Your task to perform on an android device: change the upload size in google photos Image 0: 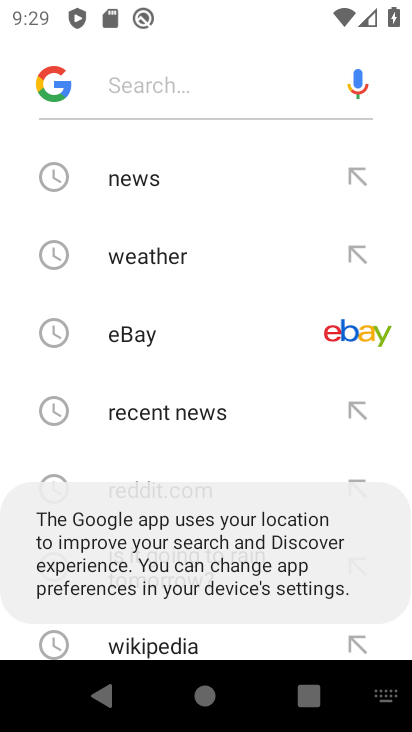
Step 0: press back button
Your task to perform on an android device: change the upload size in google photos Image 1: 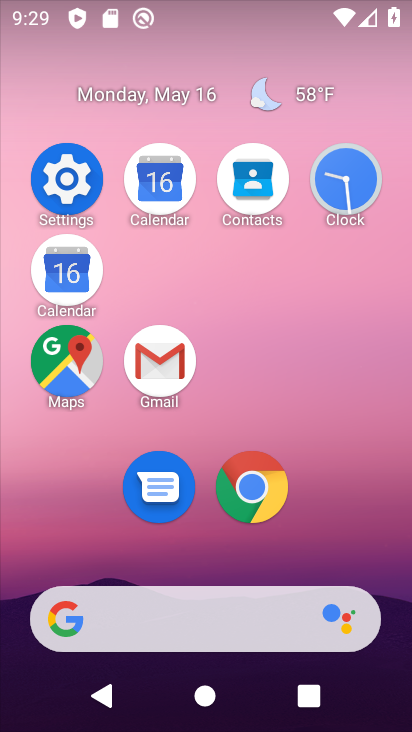
Step 1: drag from (306, 436) to (329, 99)
Your task to perform on an android device: change the upload size in google photos Image 2: 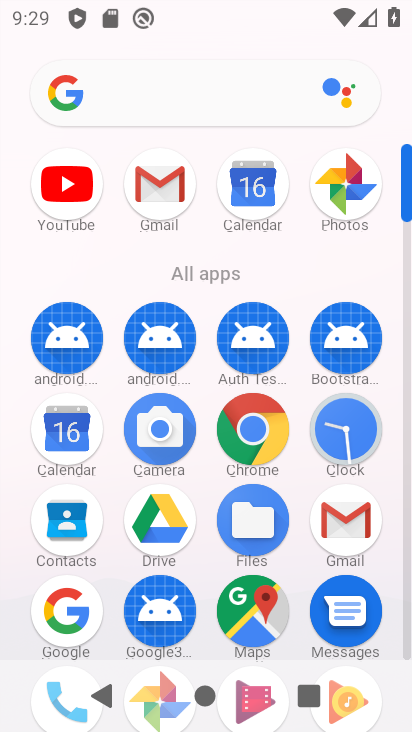
Step 2: drag from (348, 181) to (251, 308)
Your task to perform on an android device: change the upload size in google photos Image 3: 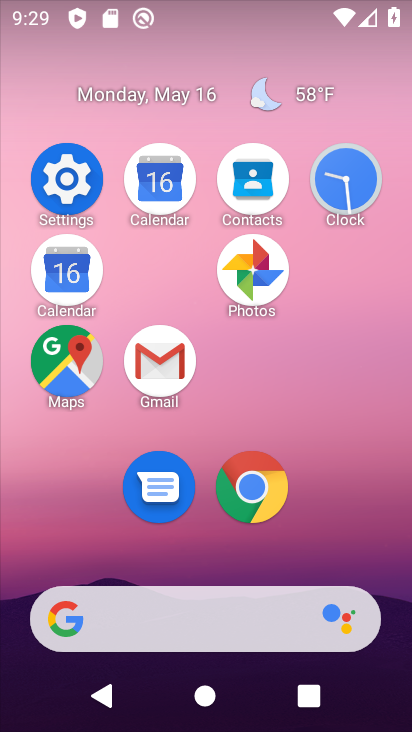
Step 3: click (232, 277)
Your task to perform on an android device: change the upload size in google photos Image 4: 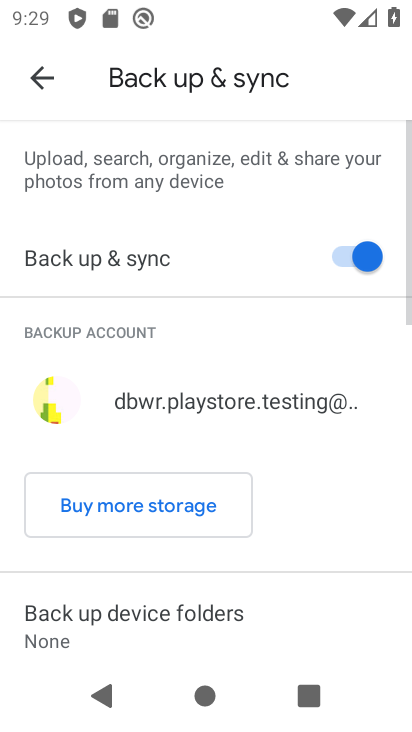
Step 4: drag from (240, 494) to (262, 148)
Your task to perform on an android device: change the upload size in google photos Image 5: 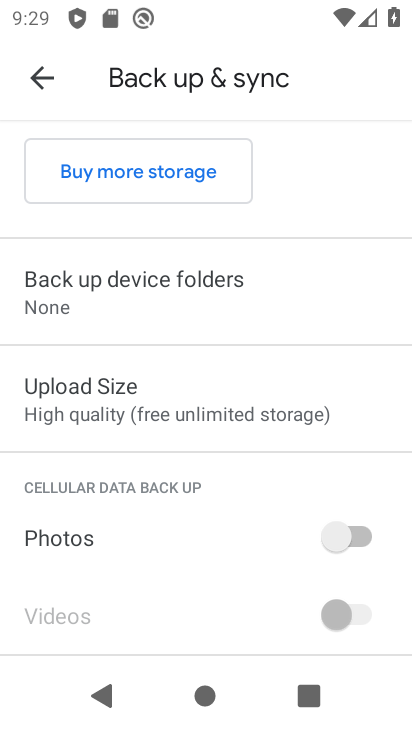
Step 5: click (286, 397)
Your task to perform on an android device: change the upload size in google photos Image 6: 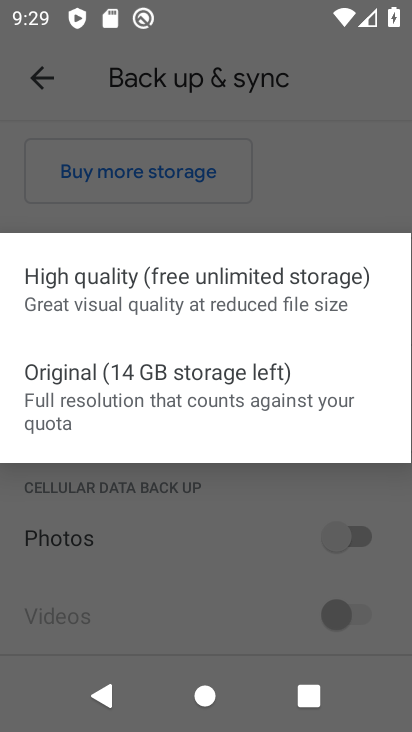
Step 6: click (288, 413)
Your task to perform on an android device: change the upload size in google photos Image 7: 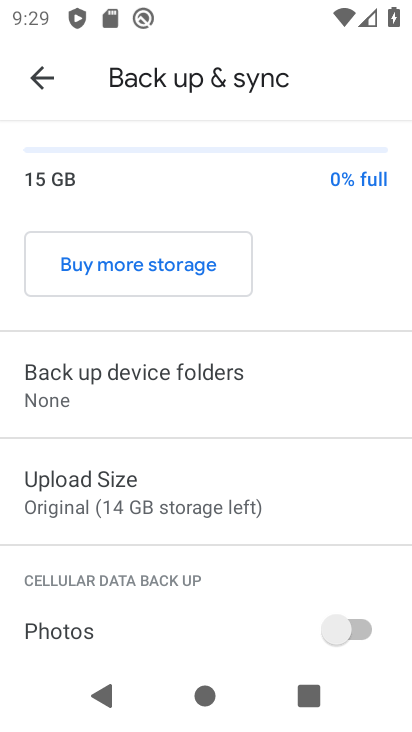
Step 7: task complete